Your task to perform on an android device: Open settings Image 0: 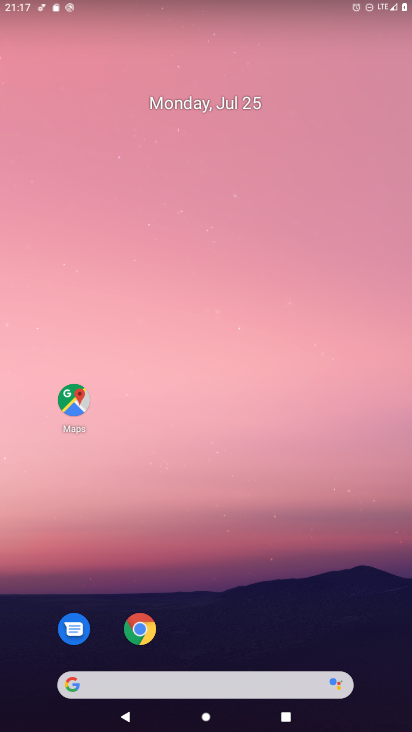
Step 0: drag from (165, 682) to (165, 97)
Your task to perform on an android device: Open settings Image 1: 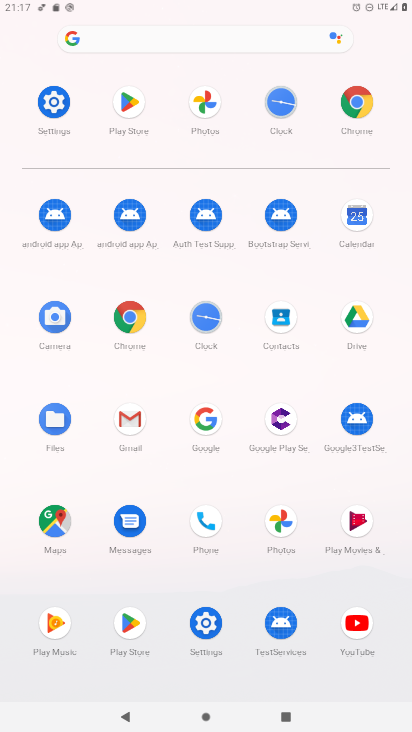
Step 1: click (205, 621)
Your task to perform on an android device: Open settings Image 2: 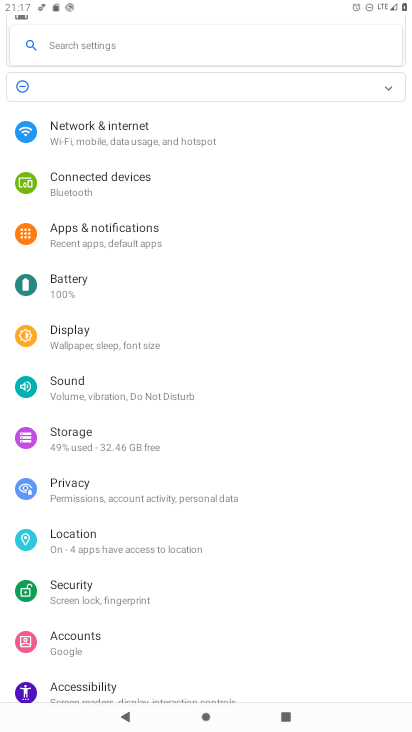
Step 2: task complete